Your task to perform on an android device: Go to internet settings Image 0: 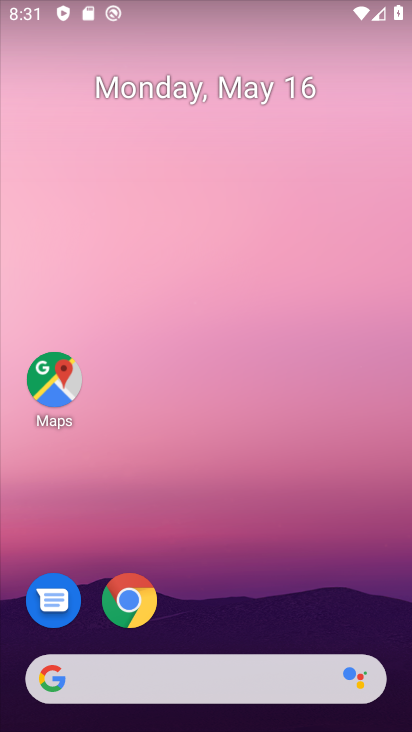
Step 0: drag from (387, 648) to (276, 133)
Your task to perform on an android device: Go to internet settings Image 1: 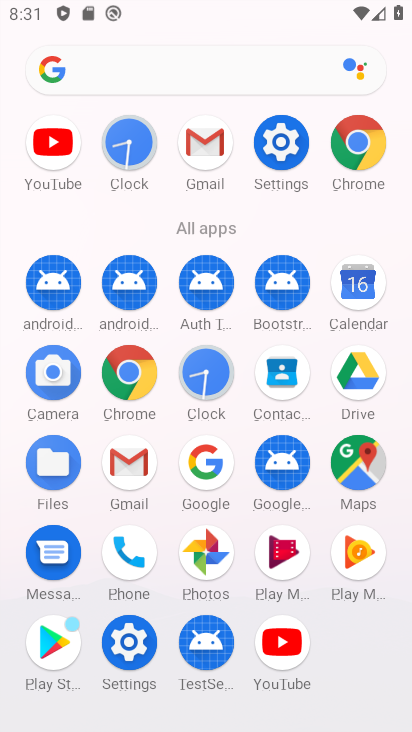
Step 1: click (130, 640)
Your task to perform on an android device: Go to internet settings Image 2: 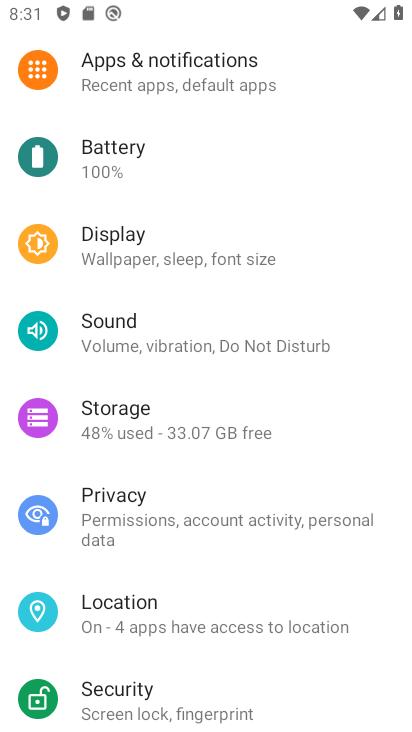
Step 2: drag from (349, 192) to (334, 551)
Your task to perform on an android device: Go to internet settings Image 3: 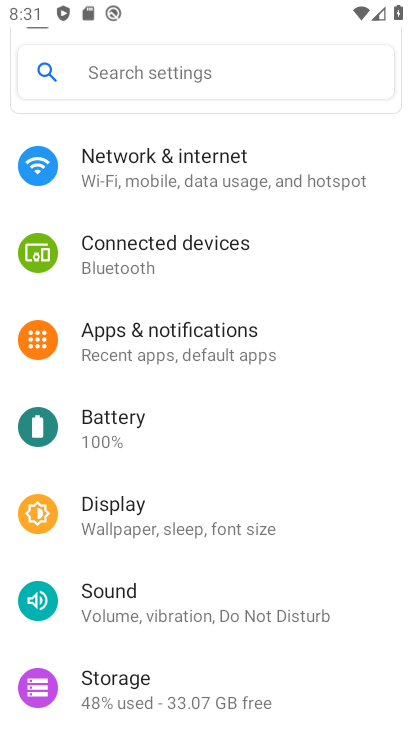
Step 3: click (137, 173)
Your task to perform on an android device: Go to internet settings Image 4: 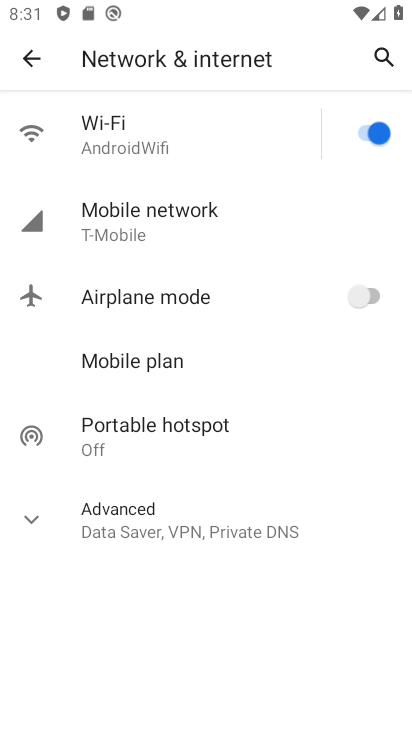
Step 4: click (132, 220)
Your task to perform on an android device: Go to internet settings Image 5: 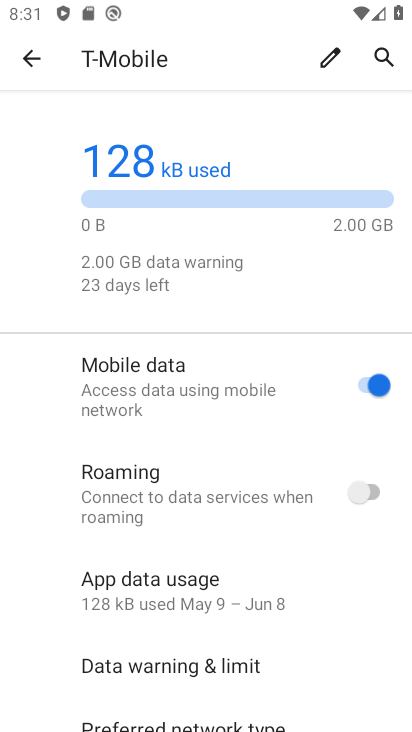
Step 5: task complete